Your task to perform on an android device: Open Chrome and go to settings Image 0: 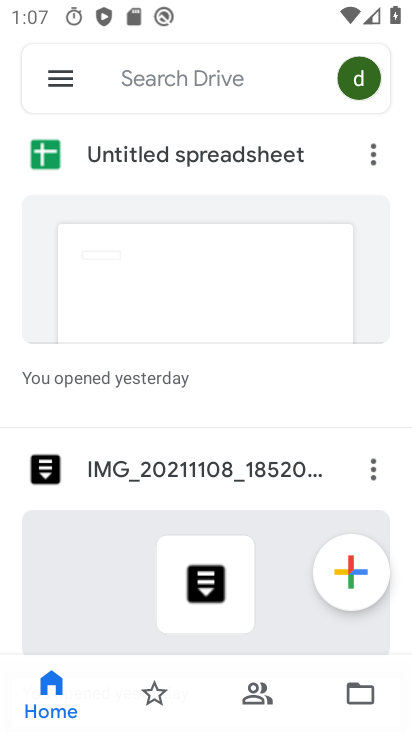
Step 0: press home button
Your task to perform on an android device: Open Chrome and go to settings Image 1: 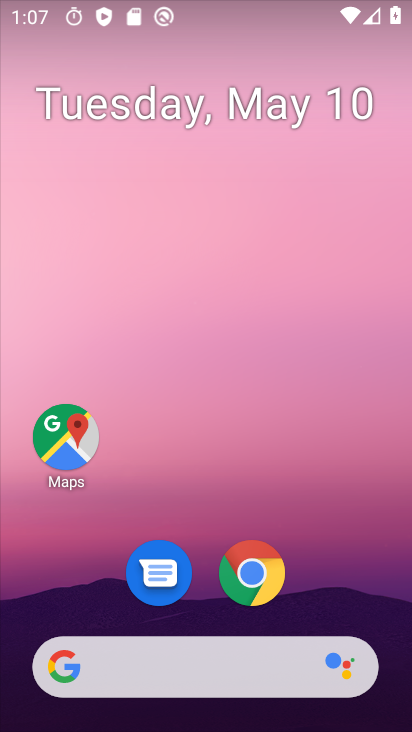
Step 1: drag from (380, 587) to (393, 176)
Your task to perform on an android device: Open Chrome and go to settings Image 2: 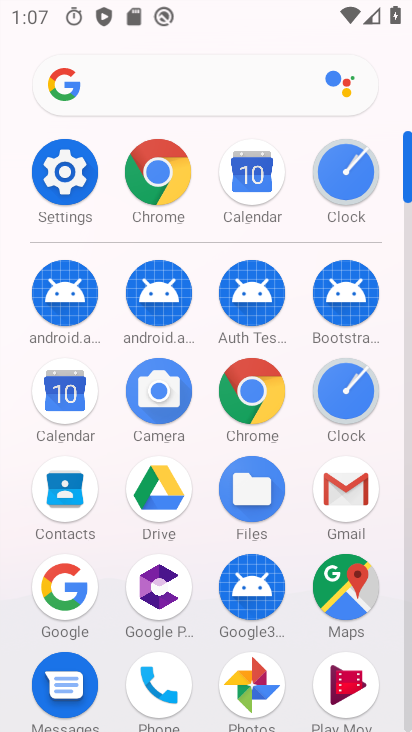
Step 2: click (187, 183)
Your task to perform on an android device: Open Chrome and go to settings Image 3: 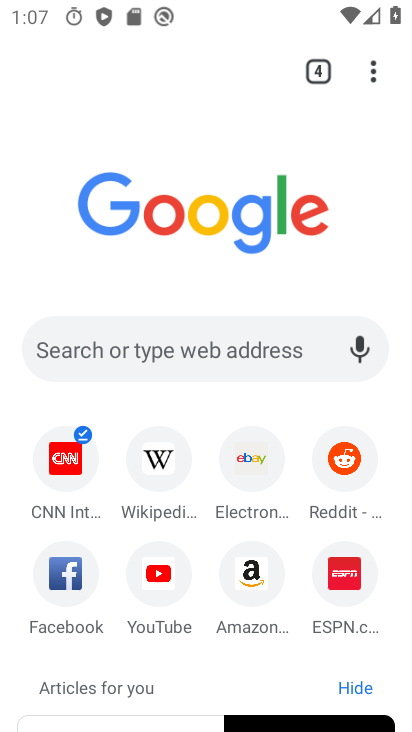
Step 3: task complete